Your task to perform on an android device: Open the stopwatch Image 0: 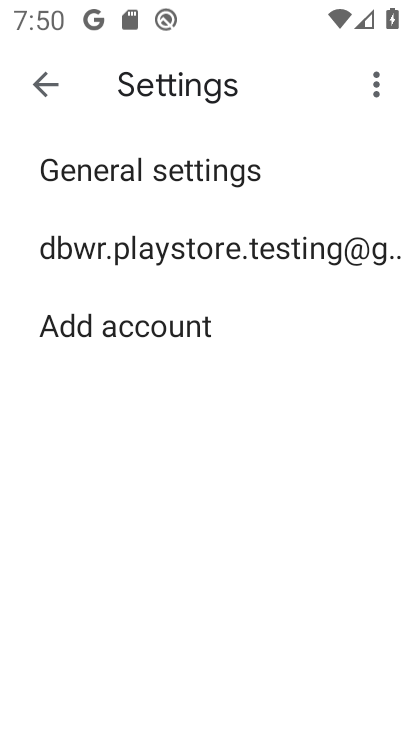
Step 0: press home button
Your task to perform on an android device: Open the stopwatch Image 1: 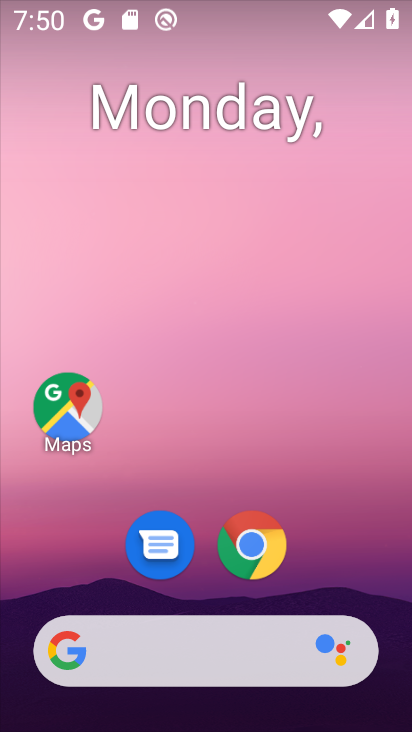
Step 1: drag from (178, 644) to (275, 116)
Your task to perform on an android device: Open the stopwatch Image 2: 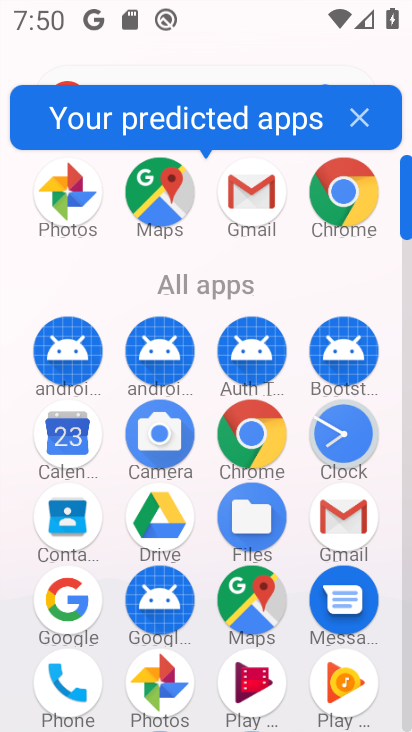
Step 2: click (337, 445)
Your task to perform on an android device: Open the stopwatch Image 3: 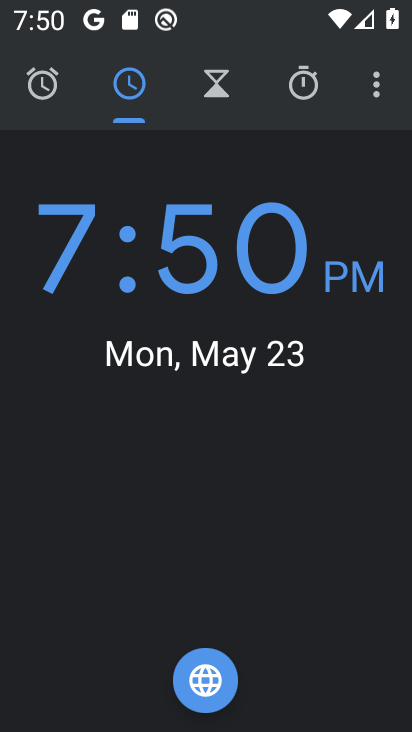
Step 3: click (309, 88)
Your task to perform on an android device: Open the stopwatch Image 4: 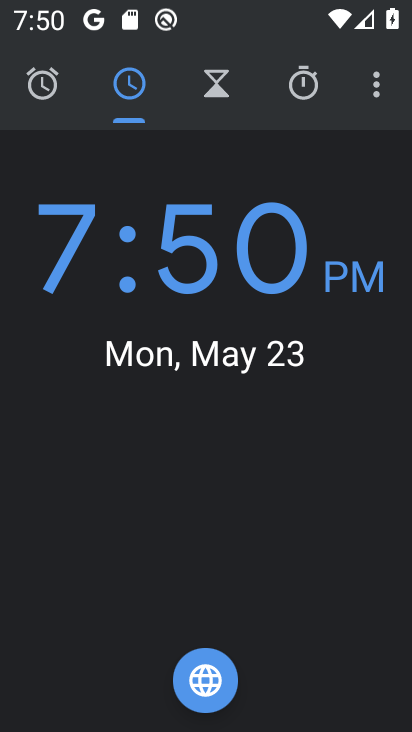
Step 4: click (309, 88)
Your task to perform on an android device: Open the stopwatch Image 5: 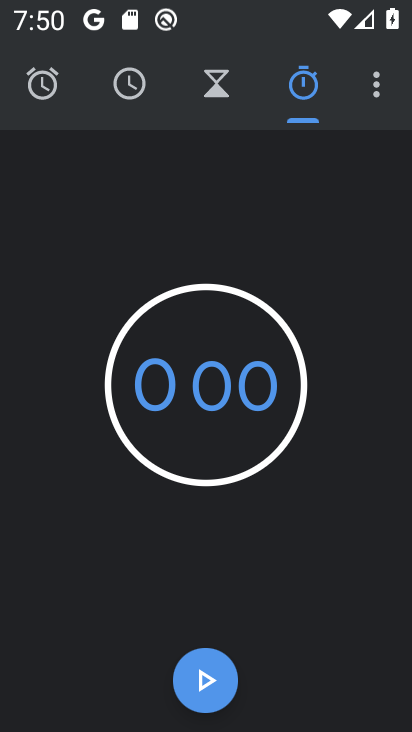
Step 5: task complete